Your task to perform on an android device: What's on the menu at Five Guys? Image 0: 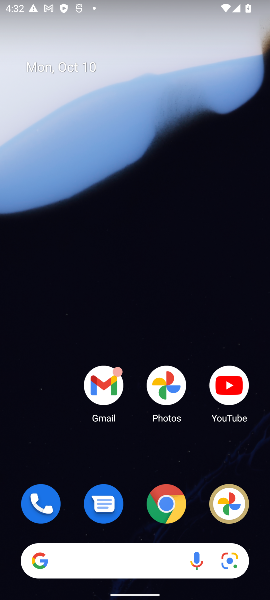
Step 0: drag from (151, 475) to (158, 101)
Your task to perform on an android device: What's on the menu at Five Guys? Image 1: 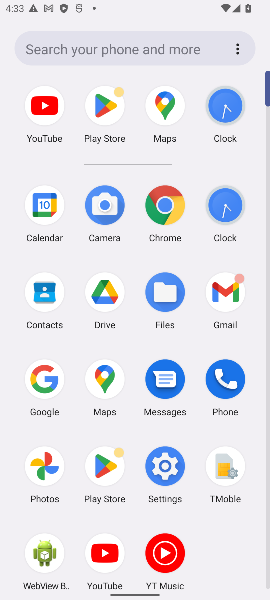
Step 1: click (155, 204)
Your task to perform on an android device: What's on the menu at Five Guys? Image 2: 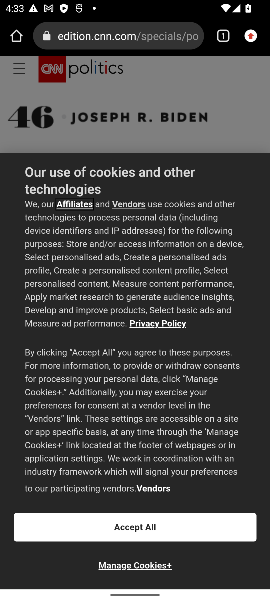
Step 2: click (135, 41)
Your task to perform on an android device: What's on the menu at Five Guys? Image 3: 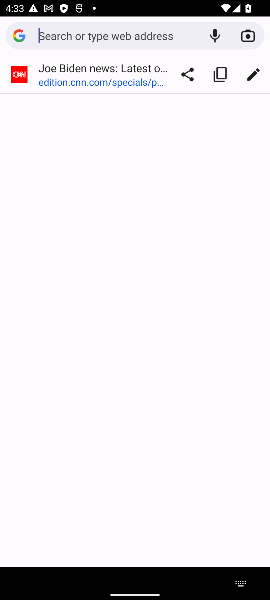
Step 3: type "What's on the menu at Five Guys?"
Your task to perform on an android device: What's on the menu at Five Guys? Image 4: 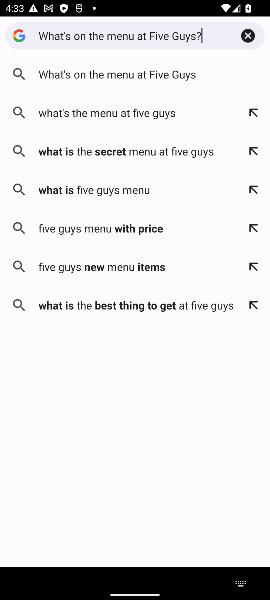
Step 4: press enter
Your task to perform on an android device: What's on the menu at Five Guys? Image 5: 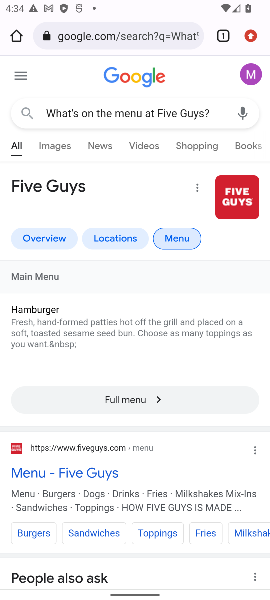
Step 5: task complete